Your task to perform on an android device: Search for seafood restaurants on Google Maps Image 0: 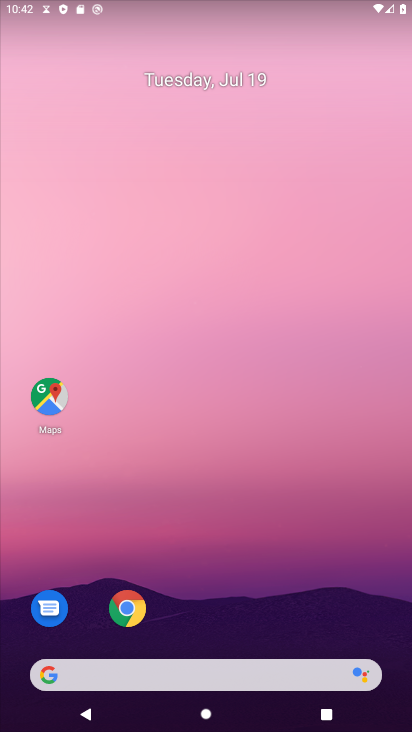
Step 0: click (53, 385)
Your task to perform on an android device: Search for seafood restaurants on Google Maps Image 1: 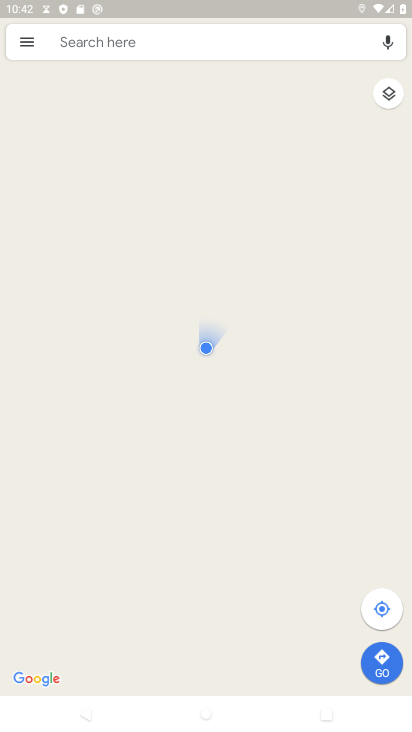
Step 1: click (128, 50)
Your task to perform on an android device: Search for seafood restaurants on Google Maps Image 2: 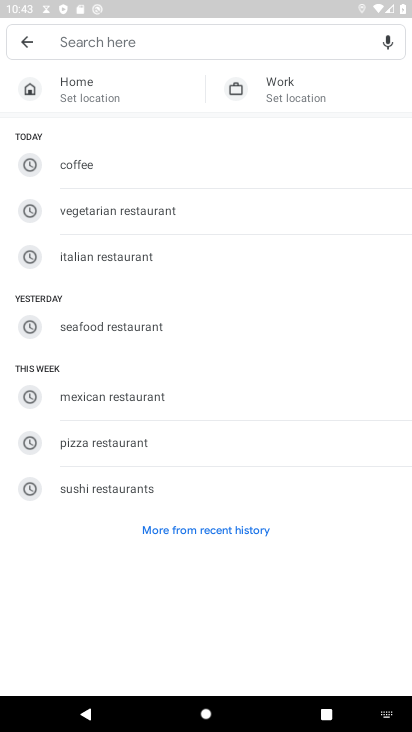
Step 2: type "seafood restaurants"
Your task to perform on an android device: Search for seafood restaurants on Google Maps Image 3: 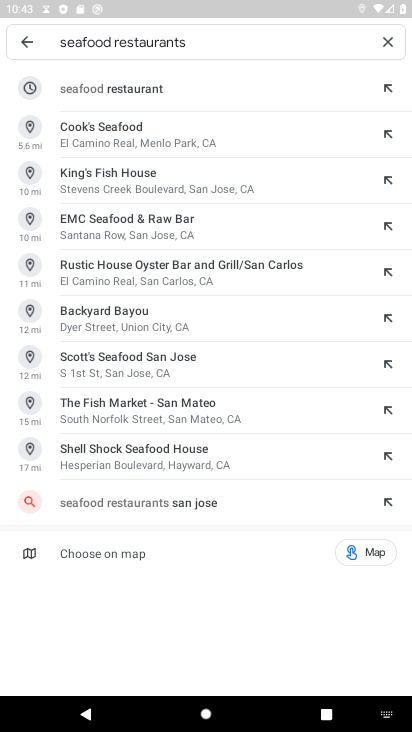
Step 3: click (230, 86)
Your task to perform on an android device: Search for seafood restaurants on Google Maps Image 4: 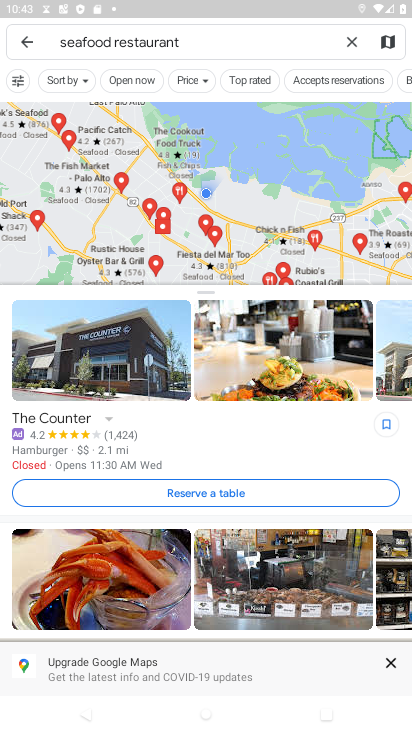
Step 4: task complete